Your task to perform on an android device: Open Yahoo.com Image 0: 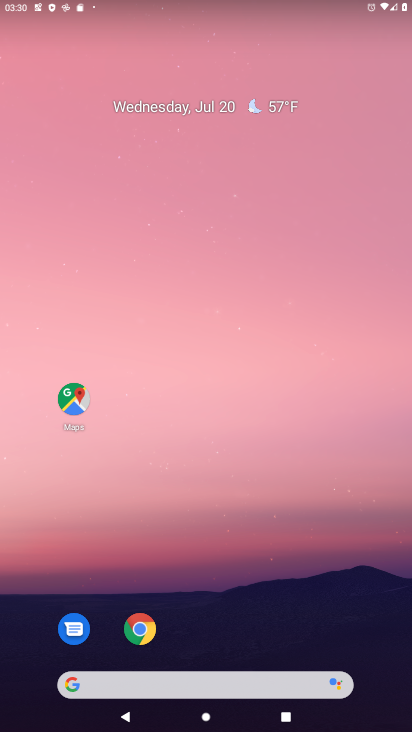
Step 0: click (139, 631)
Your task to perform on an android device: Open Yahoo.com Image 1: 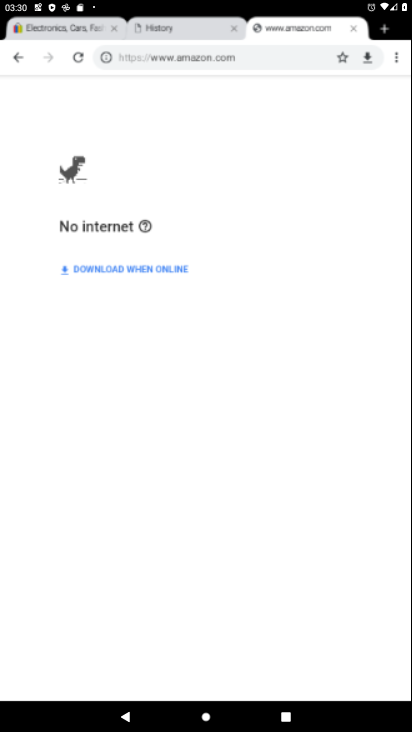
Step 1: click (234, 55)
Your task to perform on an android device: Open Yahoo.com Image 2: 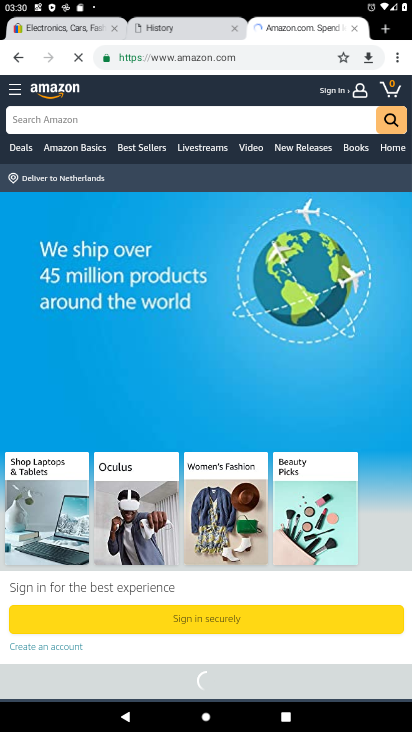
Step 2: click (255, 55)
Your task to perform on an android device: Open Yahoo.com Image 3: 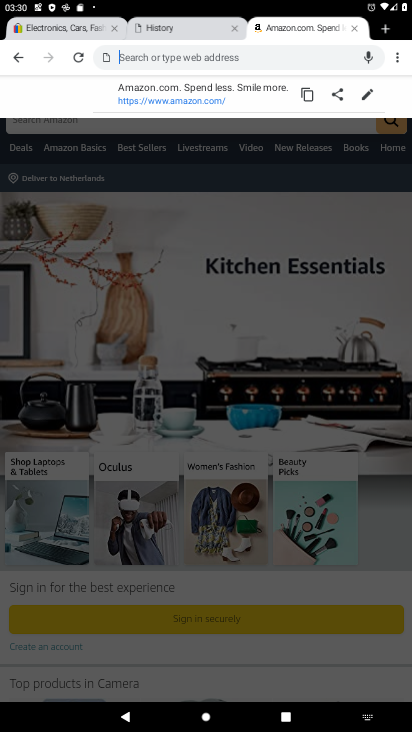
Step 3: type "yahoo.com"
Your task to perform on an android device: Open Yahoo.com Image 4: 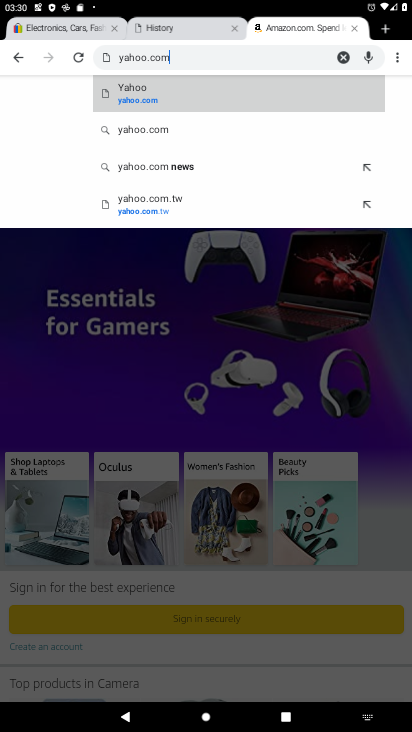
Step 4: click (132, 91)
Your task to perform on an android device: Open Yahoo.com Image 5: 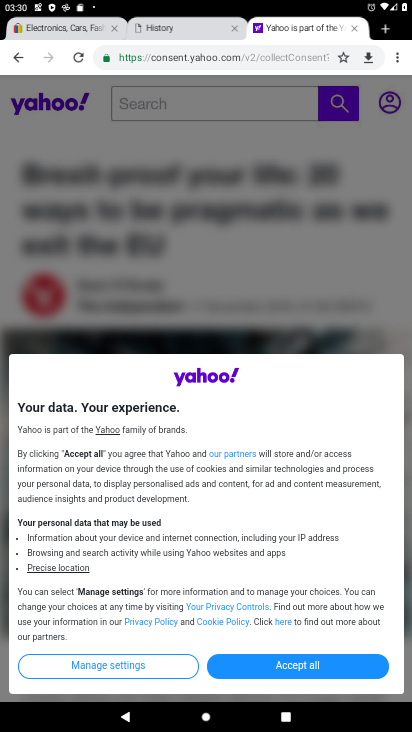
Step 5: click (287, 664)
Your task to perform on an android device: Open Yahoo.com Image 6: 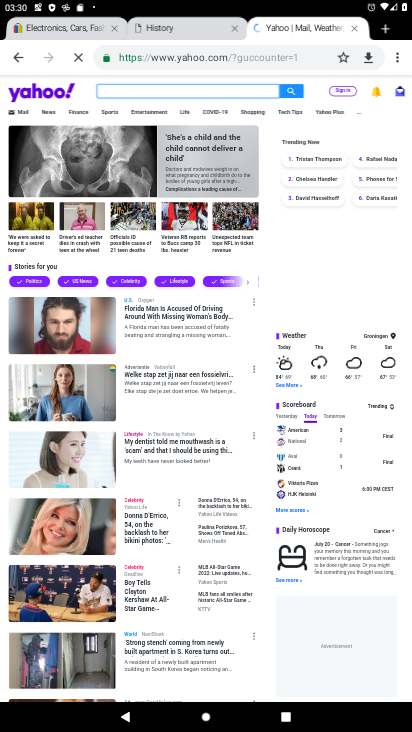
Step 6: task complete